Your task to perform on an android device: all mails in gmail Image 0: 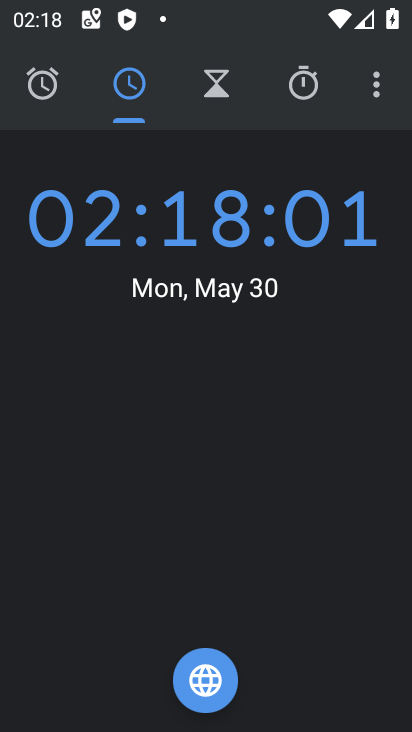
Step 0: press home button
Your task to perform on an android device: all mails in gmail Image 1: 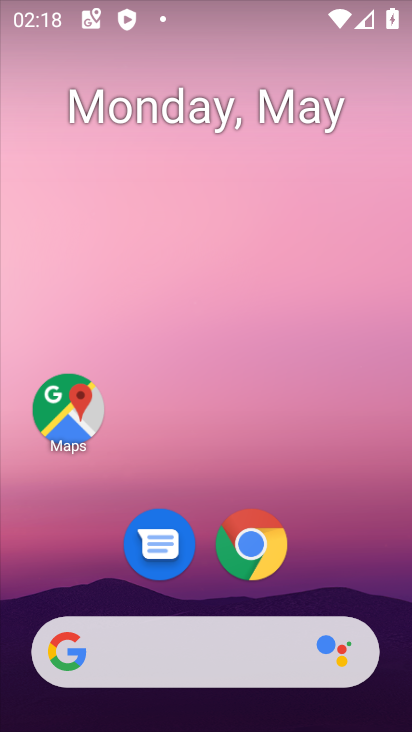
Step 1: drag from (376, 583) to (376, 324)
Your task to perform on an android device: all mails in gmail Image 2: 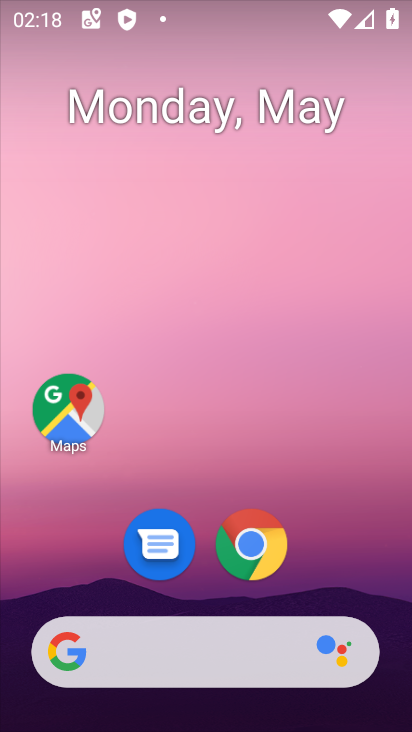
Step 2: drag from (371, 579) to (376, 282)
Your task to perform on an android device: all mails in gmail Image 3: 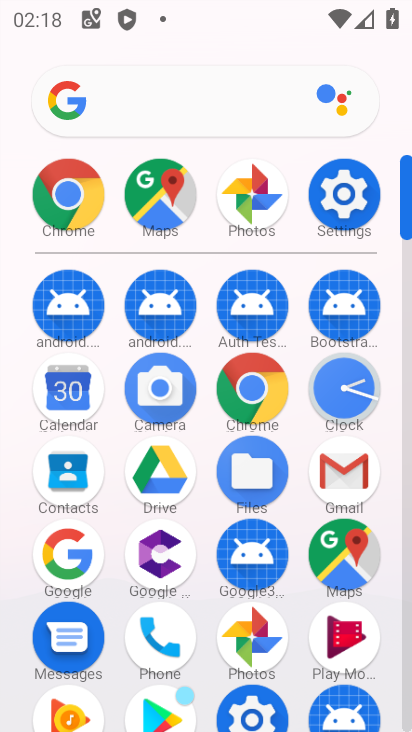
Step 3: click (367, 473)
Your task to perform on an android device: all mails in gmail Image 4: 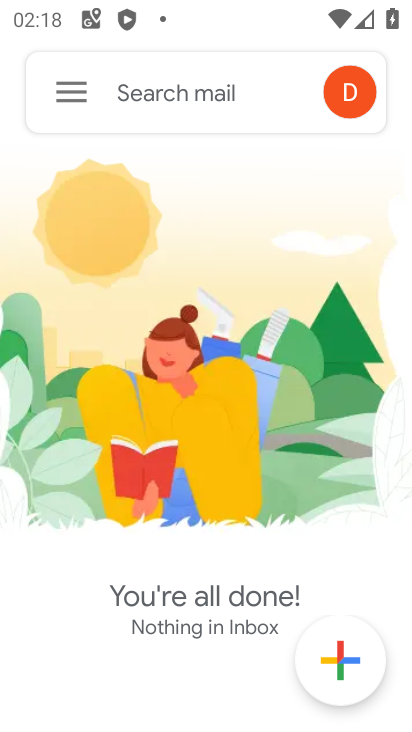
Step 4: click (87, 104)
Your task to perform on an android device: all mails in gmail Image 5: 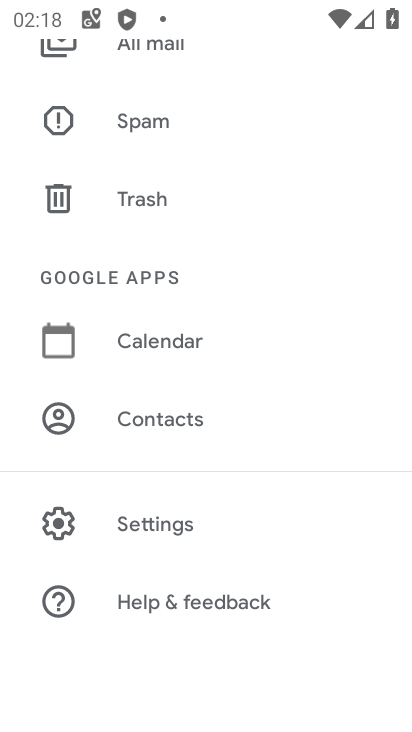
Step 5: drag from (290, 198) to (293, 298)
Your task to perform on an android device: all mails in gmail Image 6: 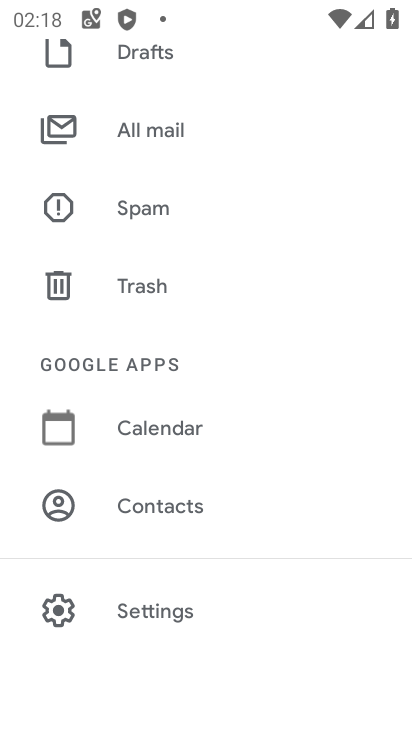
Step 6: drag from (287, 163) to (283, 265)
Your task to perform on an android device: all mails in gmail Image 7: 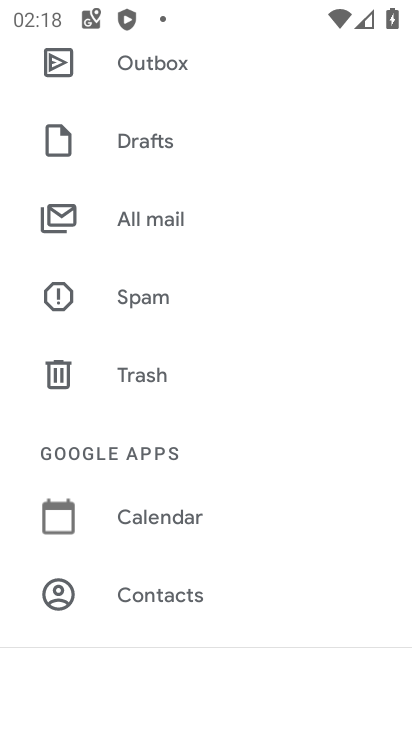
Step 7: drag from (292, 113) to (282, 267)
Your task to perform on an android device: all mails in gmail Image 8: 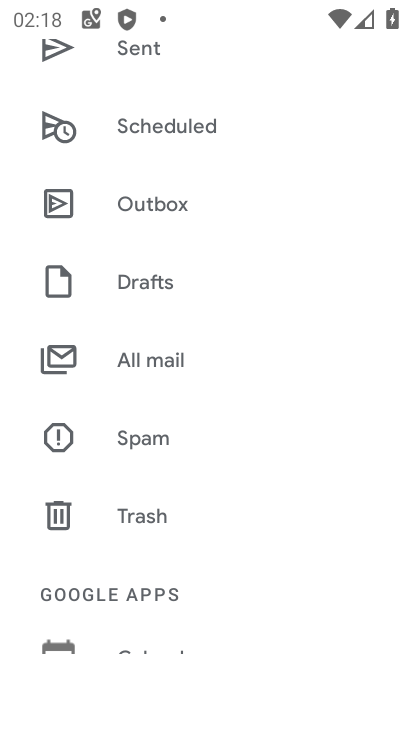
Step 8: drag from (274, 84) to (277, 244)
Your task to perform on an android device: all mails in gmail Image 9: 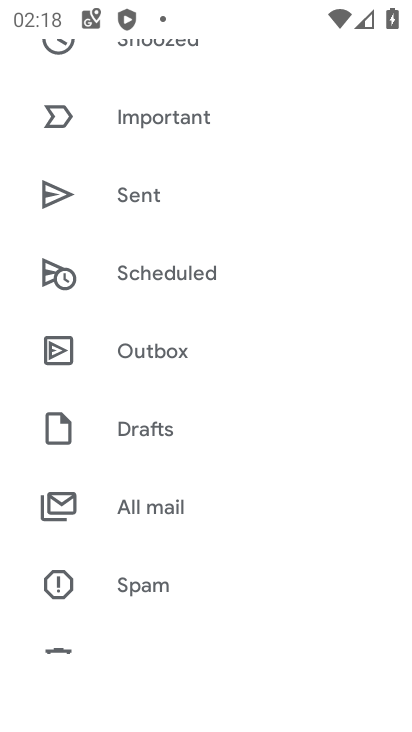
Step 9: drag from (276, 84) to (279, 280)
Your task to perform on an android device: all mails in gmail Image 10: 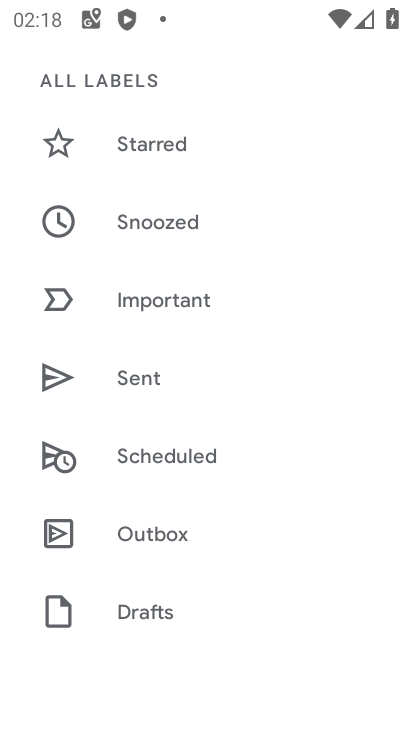
Step 10: drag from (259, 97) to (263, 268)
Your task to perform on an android device: all mails in gmail Image 11: 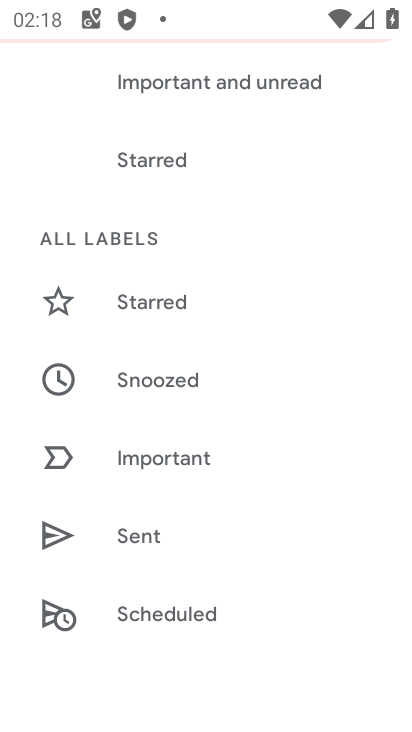
Step 11: drag from (266, 66) to (251, 261)
Your task to perform on an android device: all mails in gmail Image 12: 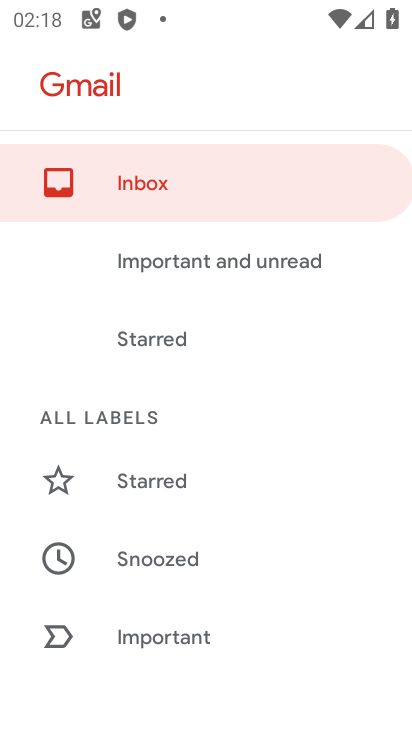
Step 12: drag from (241, 297) to (240, 118)
Your task to perform on an android device: all mails in gmail Image 13: 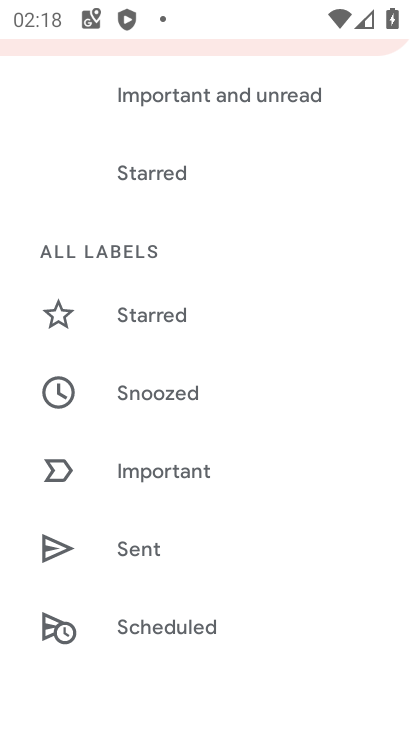
Step 13: drag from (252, 300) to (265, 153)
Your task to perform on an android device: all mails in gmail Image 14: 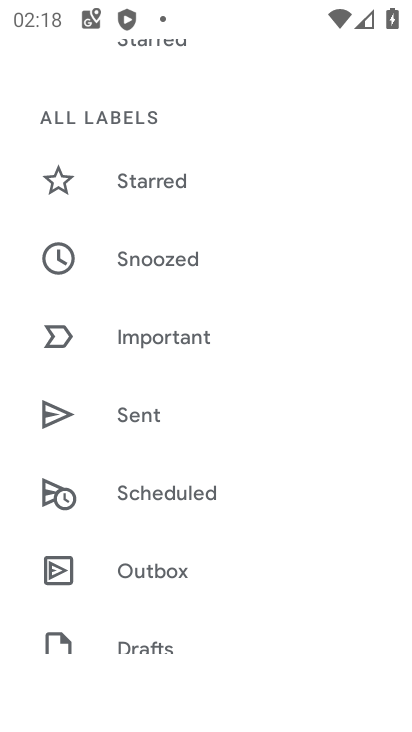
Step 14: drag from (259, 338) to (270, 215)
Your task to perform on an android device: all mails in gmail Image 15: 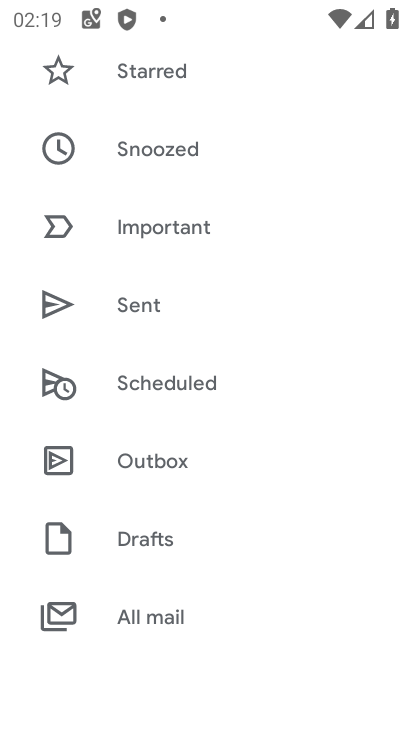
Step 15: drag from (266, 347) to (285, 161)
Your task to perform on an android device: all mails in gmail Image 16: 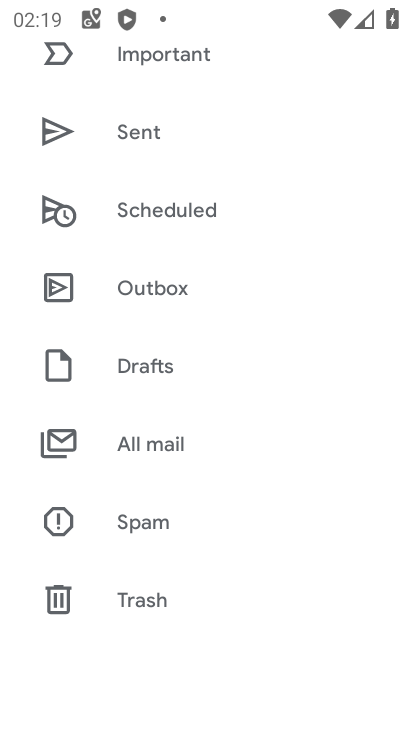
Step 16: drag from (258, 376) to (269, 163)
Your task to perform on an android device: all mails in gmail Image 17: 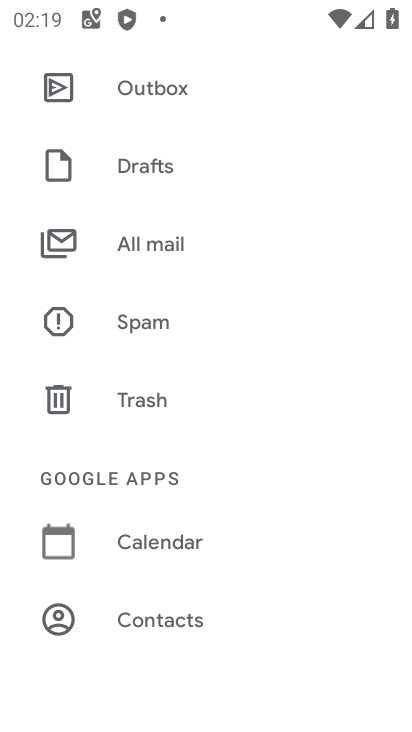
Step 17: drag from (251, 360) to (257, 243)
Your task to perform on an android device: all mails in gmail Image 18: 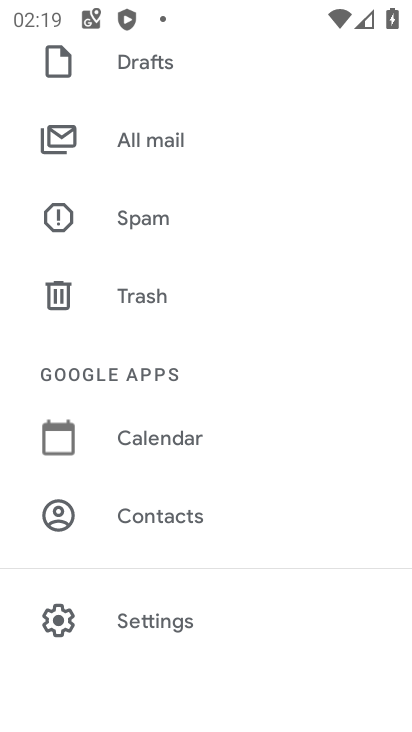
Step 18: click (156, 156)
Your task to perform on an android device: all mails in gmail Image 19: 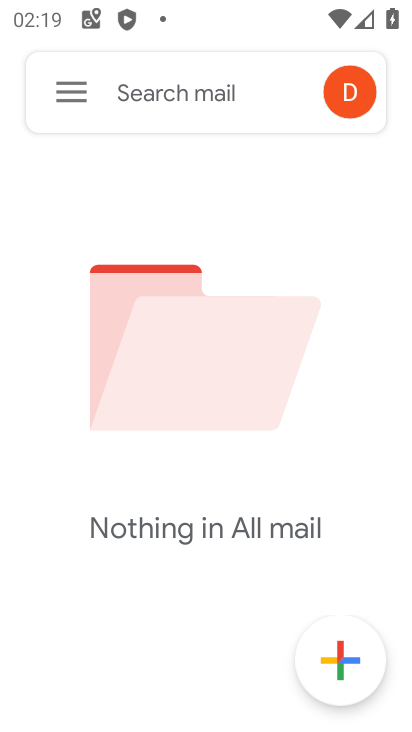
Step 19: task complete